Your task to perform on an android device: Open Google Chrome and click the shortcut for Amazon.com Image 0: 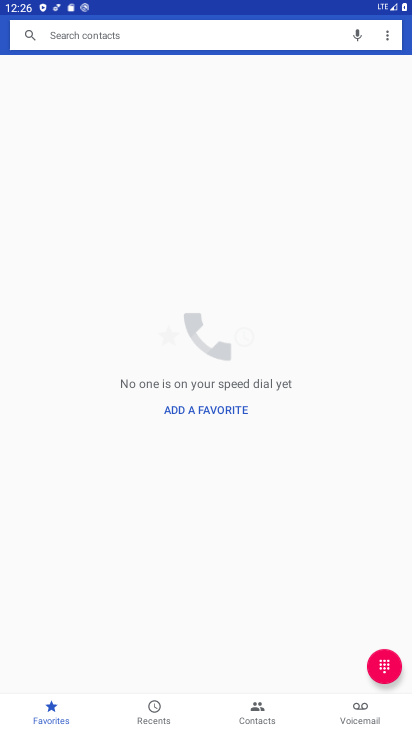
Step 0: press home button
Your task to perform on an android device: Open Google Chrome and click the shortcut for Amazon.com Image 1: 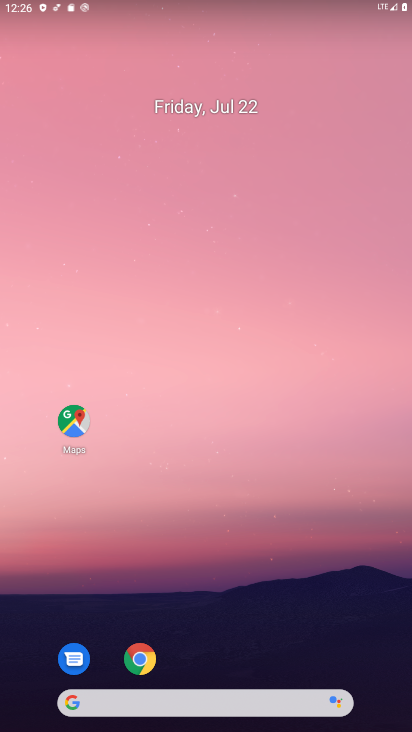
Step 1: click (125, 661)
Your task to perform on an android device: Open Google Chrome and click the shortcut for Amazon.com Image 2: 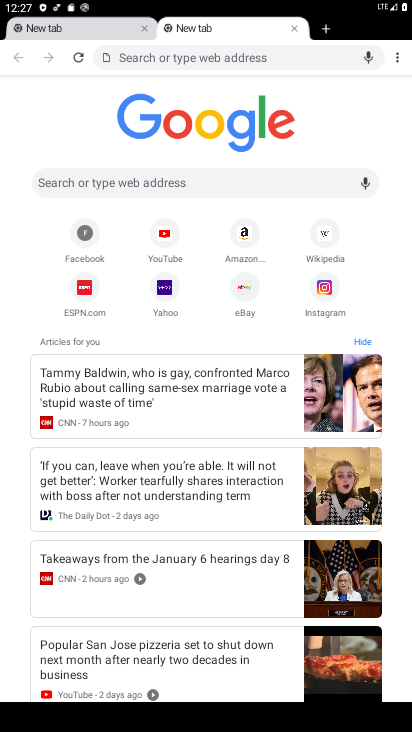
Step 2: click (229, 240)
Your task to perform on an android device: Open Google Chrome and click the shortcut for Amazon.com Image 3: 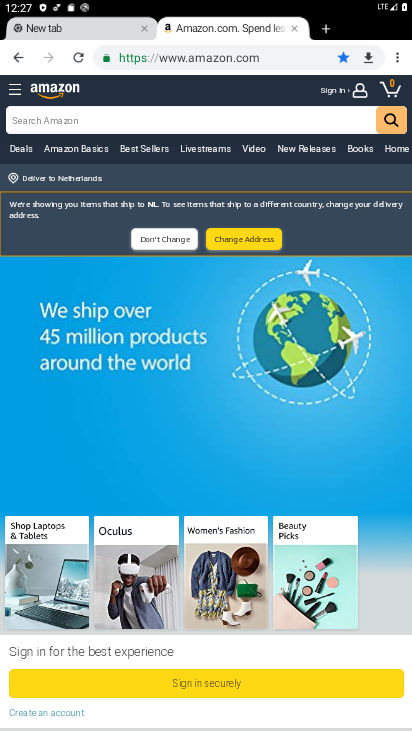
Step 3: task complete